Your task to perform on an android device: change the clock display to analog Image 0: 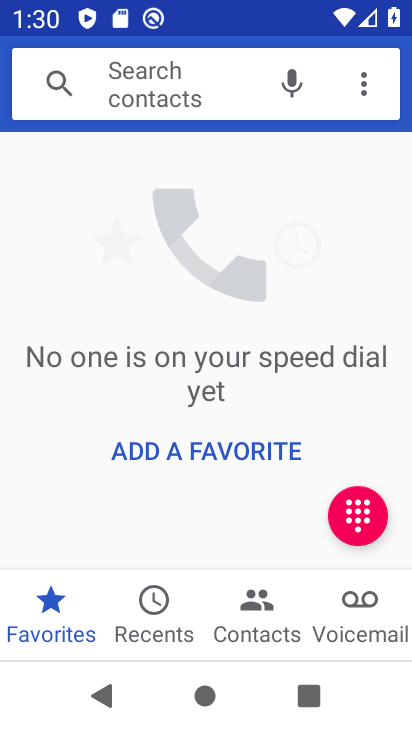
Step 0: press home button
Your task to perform on an android device: change the clock display to analog Image 1: 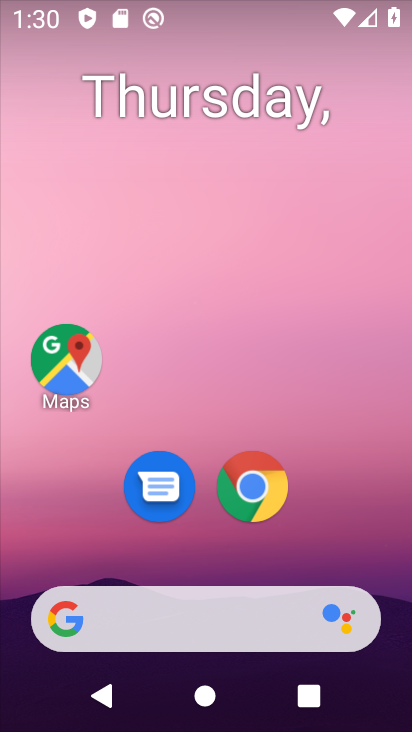
Step 1: drag from (336, 530) to (278, 138)
Your task to perform on an android device: change the clock display to analog Image 2: 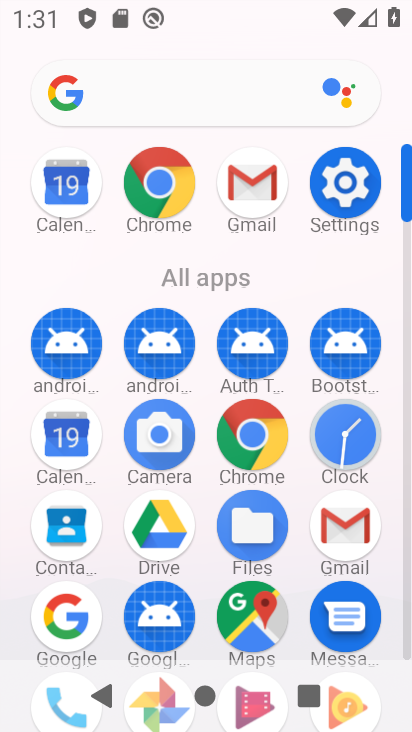
Step 2: click (341, 450)
Your task to perform on an android device: change the clock display to analog Image 3: 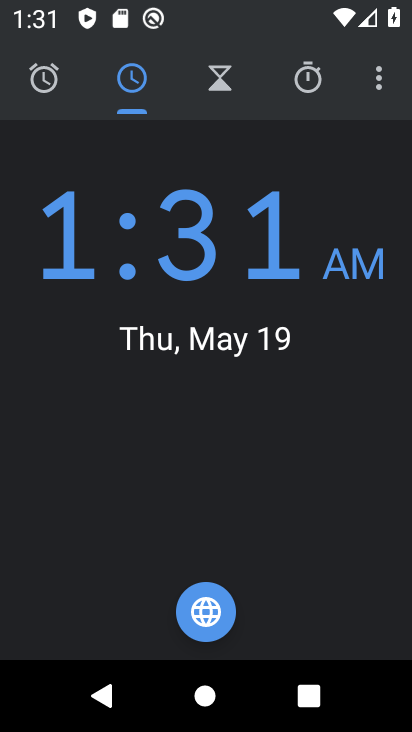
Step 3: click (386, 71)
Your task to perform on an android device: change the clock display to analog Image 4: 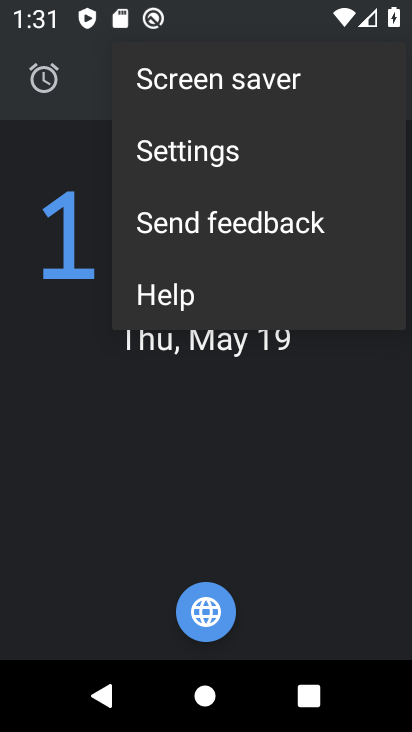
Step 4: click (329, 137)
Your task to perform on an android device: change the clock display to analog Image 5: 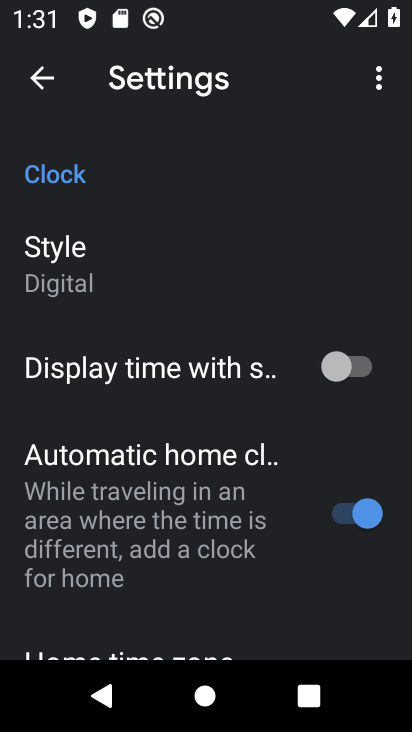
Step 5: click (156, 279)
Your task to perform on an android device: change the clock display to analog Image 6: 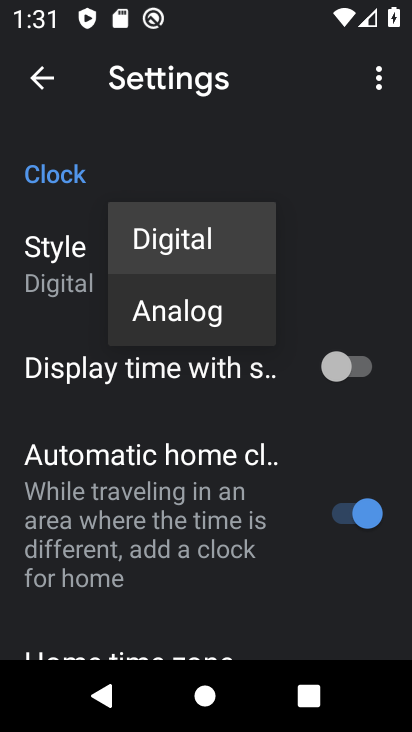
Step 6: click (171, 321)
Your task to perform on an android device: change the clock display to analog Image 7: 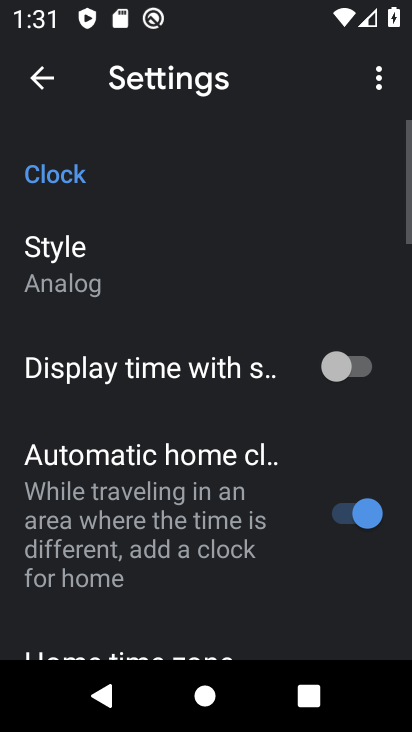
Step 7: task complete